Your task to perform on an android device: Show me the alarms in the clock app Image 0: 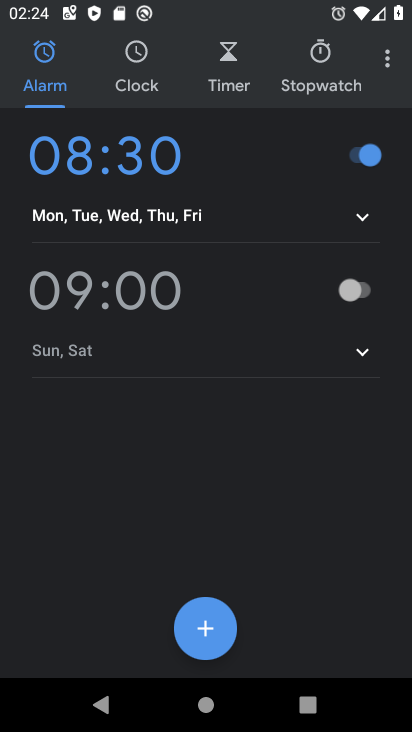
Step 0: press home button
Your task to perform on an android device: Show me the alarms in the clock app Image 1: 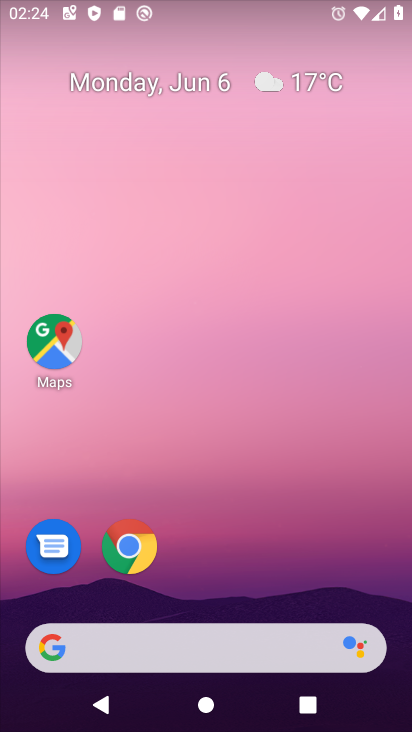
Step 1: drag from (218, 366) to (224, 255)
Your task to perform on an android device: Show me the alarms in the clock app Image 2: 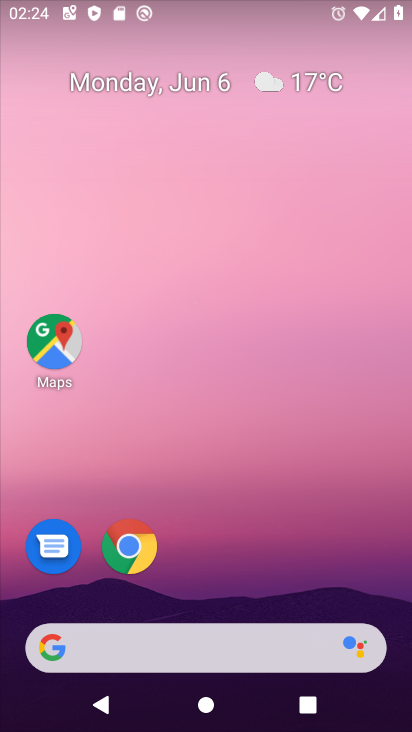
Step 2: drag from (219, 592) to (217, 201)
Your task to perform on an android device: Show me the alarms in the clock app Image 3: 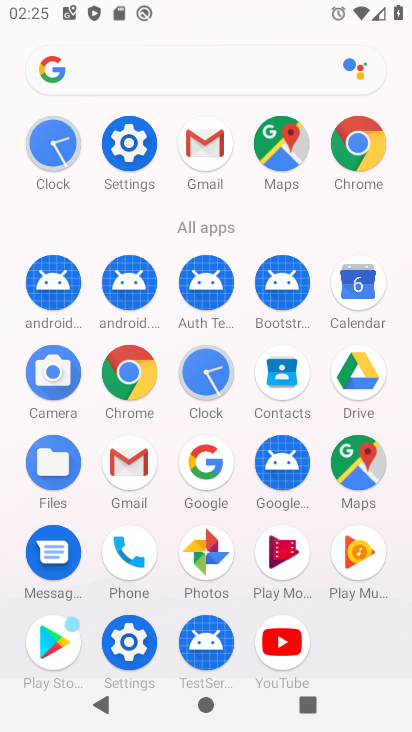
Step 3: click (208, 371)
Your task to perform on an android device: Show me the alarms in the clock app Image 4: 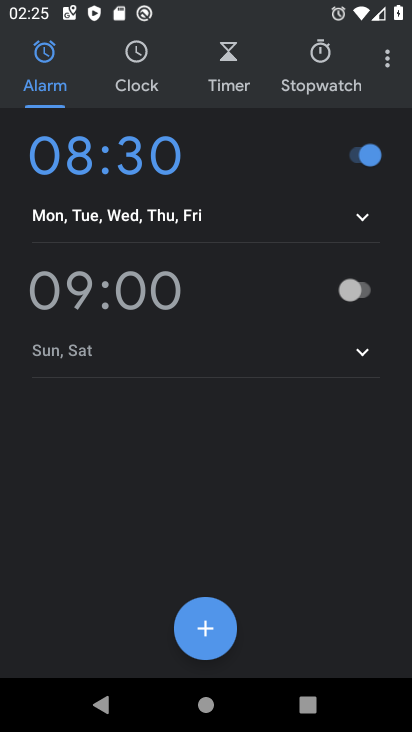
Step 4: task complete